Your task to perform on an android device: Open display settings Image 0: 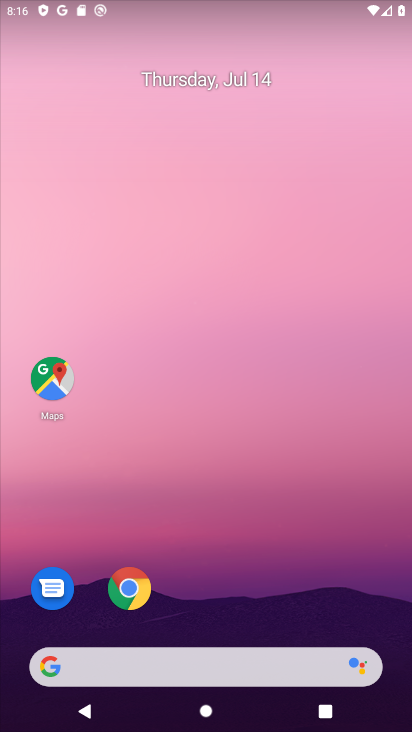
Step 0: click (183, 153)
Your task to perform on an android device: Open display settings Image 1: 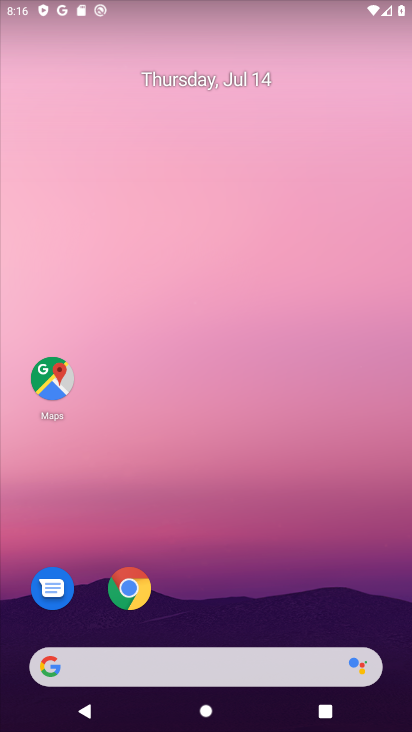
Step 1: drag from (267, 632) to (210, 110)
Your task to perform on an android device: Open display settings Image 2: 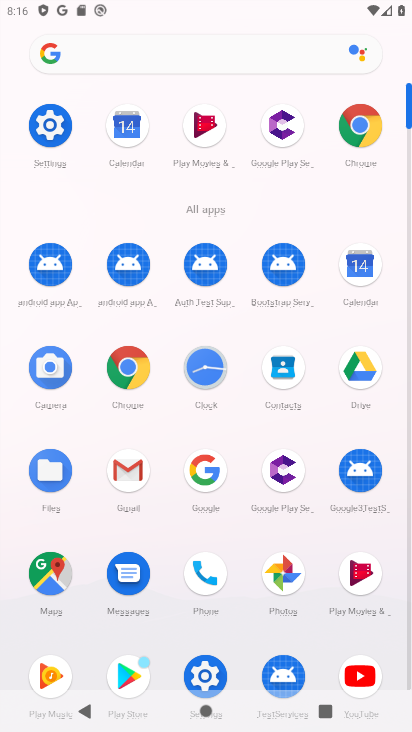
Step 2: click (200, 678)
Your task to perform on an android device: Open display settings Image 3: 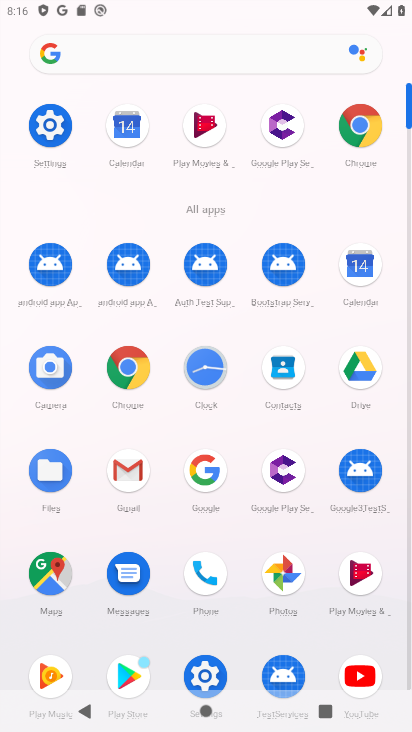
Step 3: click (206, 675)
Your task to perform on an android device: Open display settings Image 4: 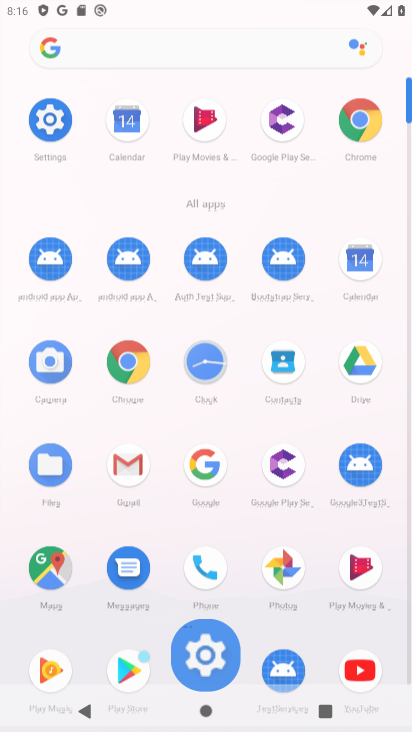
Step 4: click (208, 675)
Your task to perform on an android device: Open display settings Image 5: 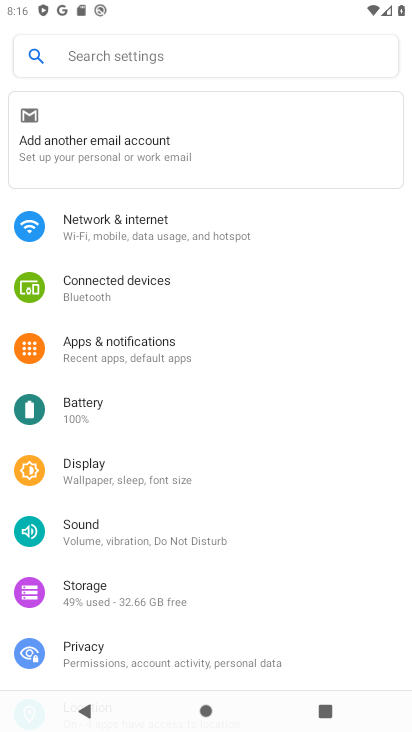
Step 5: click (217, 669)
Your task to perform on an android device: Open display settings Image 6: 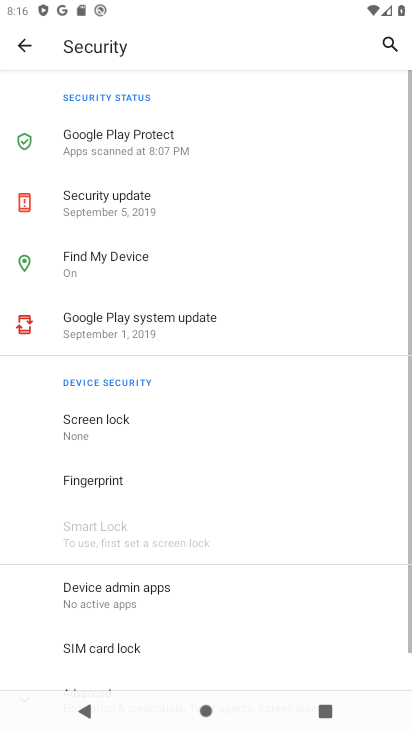
Step 6: click (15, 49)
Your task to perform on an android device: Open display settings Image 7: 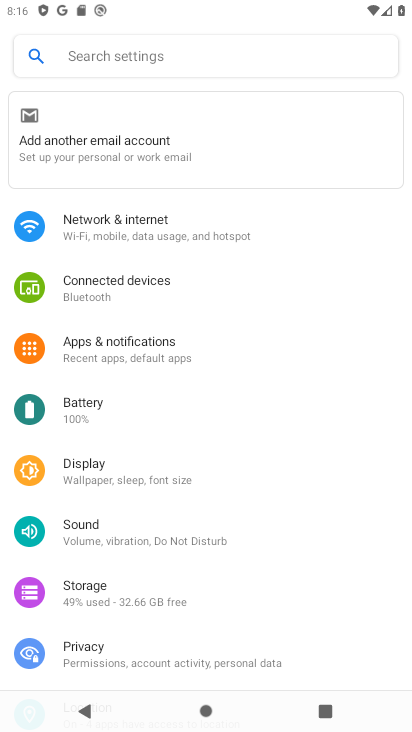
Step 7: click (75, 468)
Your task to perform on an android device: Open display settings Image 8: 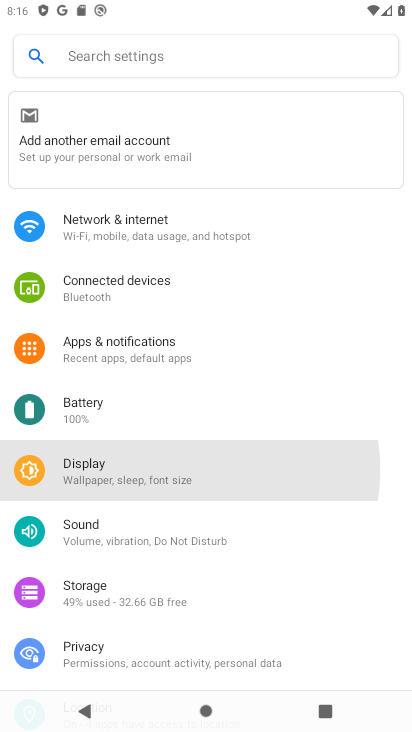
Step 8: click (75, 467)
Your task to perform on an android device: Open display settings Image 9: 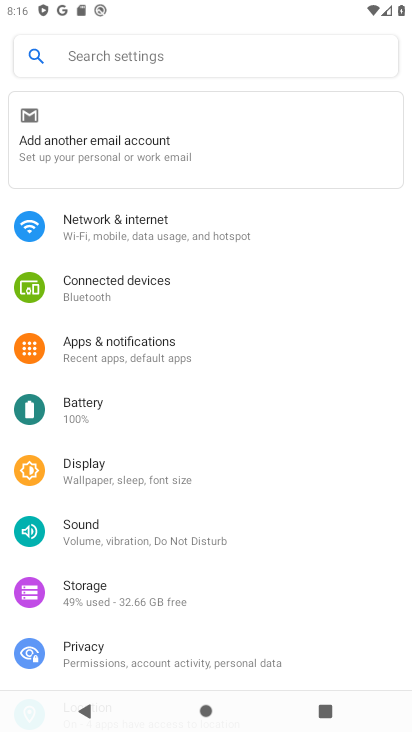
Step 9: click (75, 467)
Your task to perform on an android device: Open display settings Image 10: 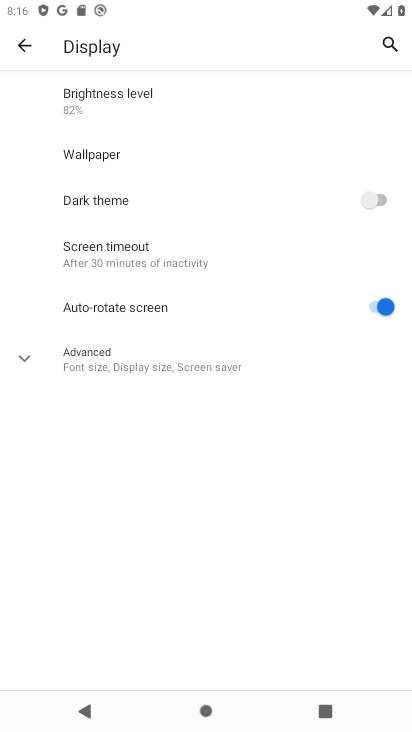
Step 10: task complete